Your task to perform on an android device: Go to privacy settings Image 0: 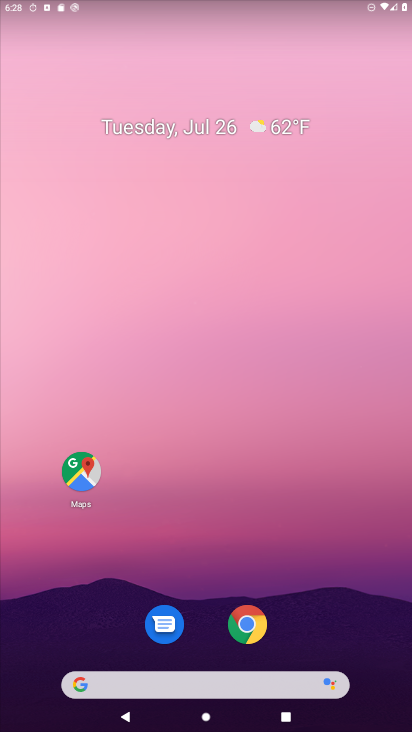
Step 0: drag from (275, 676) to (292, 19)
Your task to perform on an android device: Go to privacy settings Image 1: 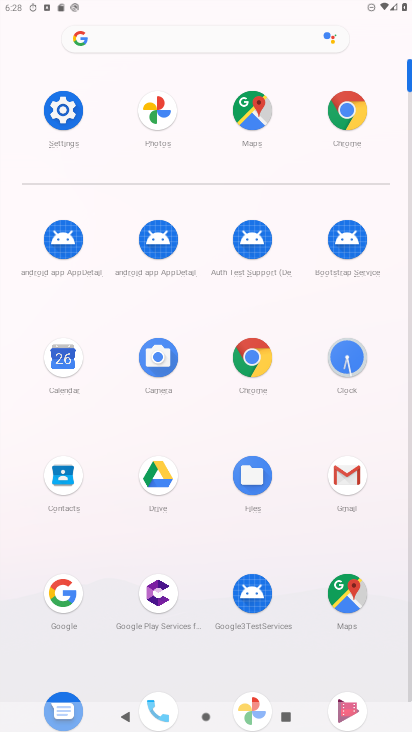
Step 1: click (71, 109)
Your task to perform on an android device: Go to privacy settings Image 2: 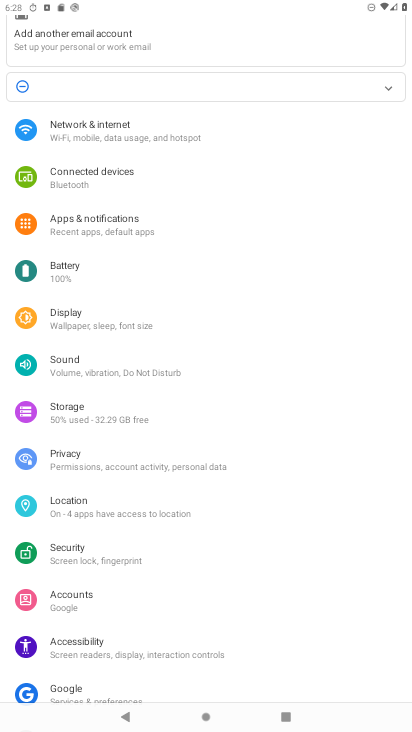
Step 2: click (156, 463)
Your task to perform on an android device: Go to privacy settings Image 3: 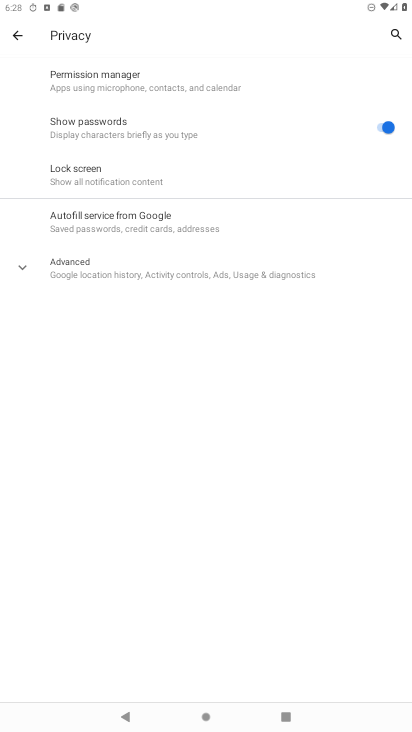
Step 3: task complete